Your task to perform on an android device: turn off smart reply in the gmail app Image 0: 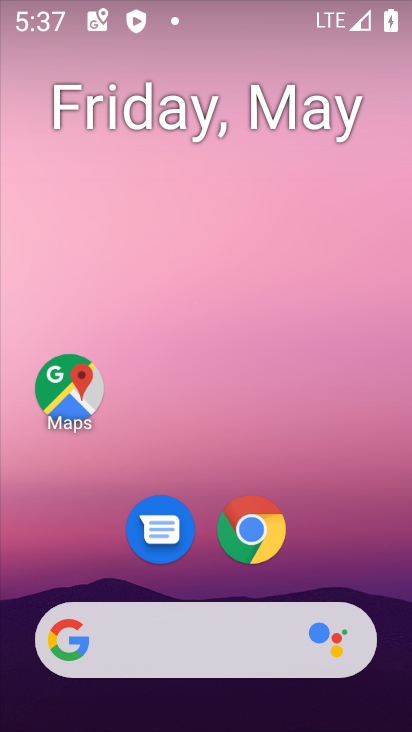
Step 0: drag from (200, 574) to (197, 9)
Your task to perform on an android device: turn off smart reply in the gmail app Image 1: 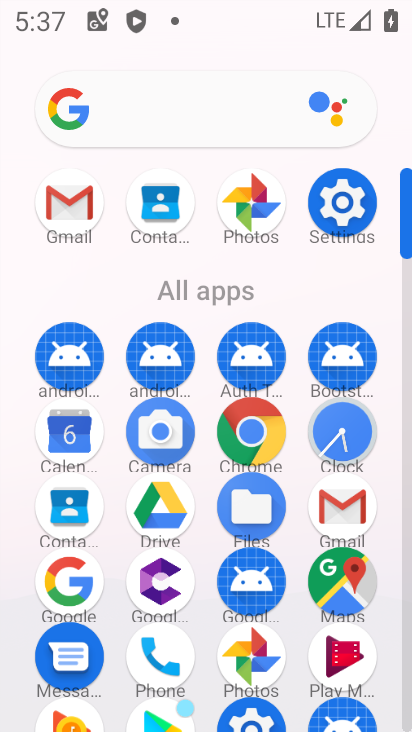
Step 1: click (59, 201)
Your task to perform on an android device: turn off smart reply in the gmail app Image 2: 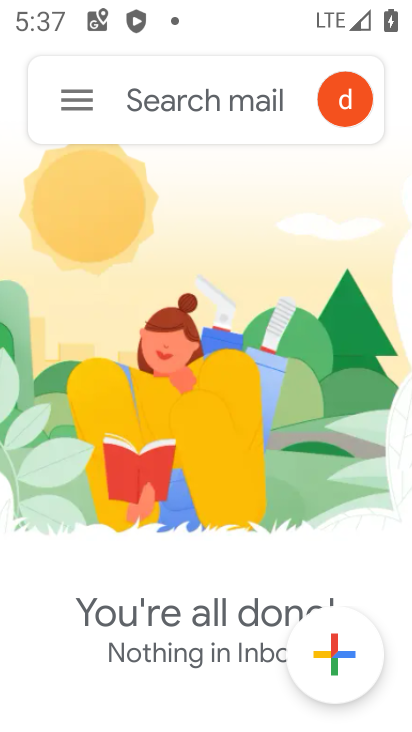
Step 2: click (87, 93)
Your task to perform on an android device: turn off smart reply in the gmail app Image 3: 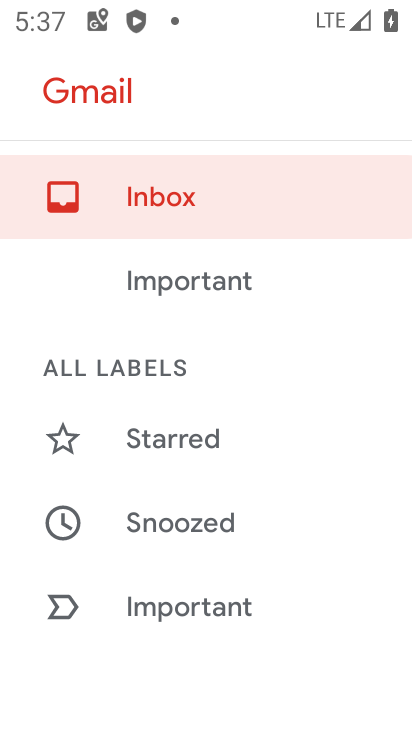
Step 3: drag from (78, 537) to (117, 183)
Your task to perform on an android device: turn off smart reply in the gmail app Image 4: 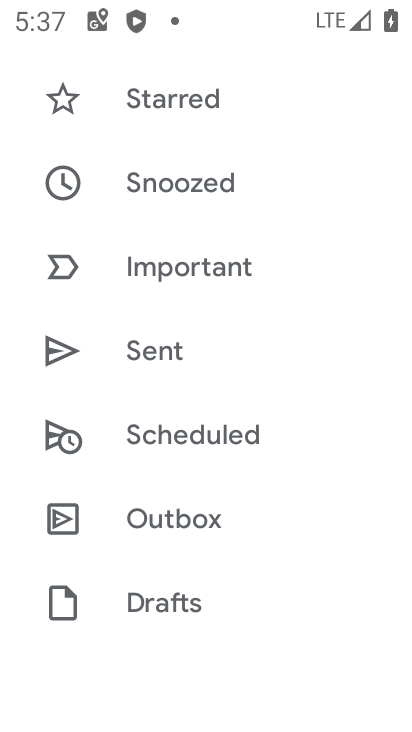
Step 4: drag from (56, 622) to (141, 147)
Your task to perform on an android device: turn off smart reply in the gmail app Image 5: 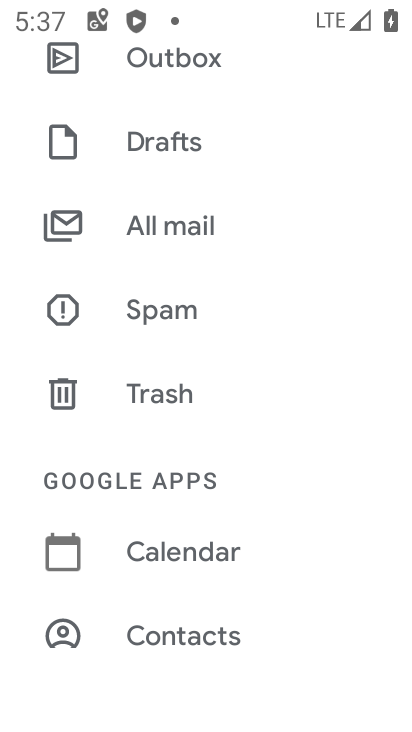
Step 5: drag from (47, 653) to (138, 172)
Your task to perform on an android device: turn off smart reply in the gmail app Image 6: 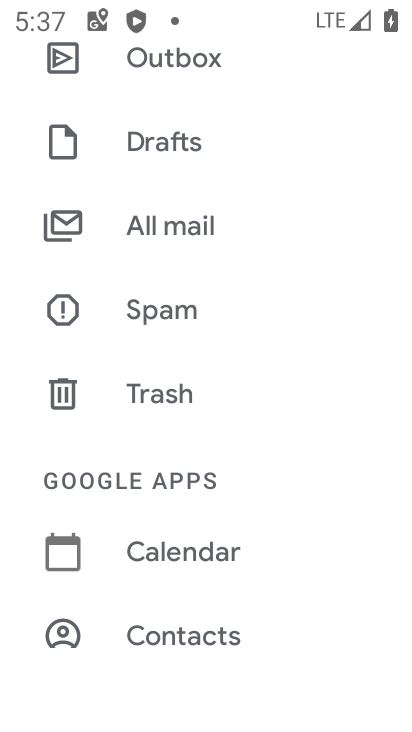
Step 6: drag from (81, 607) to (143, 94)
Your task to perform on an android device: turn off smart reply in the gmail app Image 7: 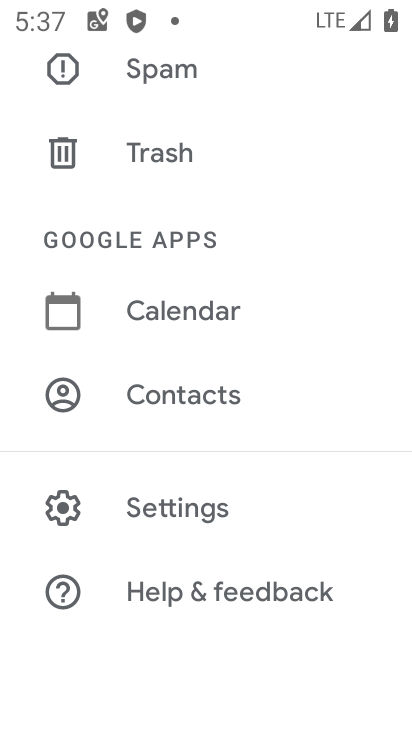
Step 7: click (138, 491)
Your task to perform on an android device: turn off smart reply in the gmail app Image 8: 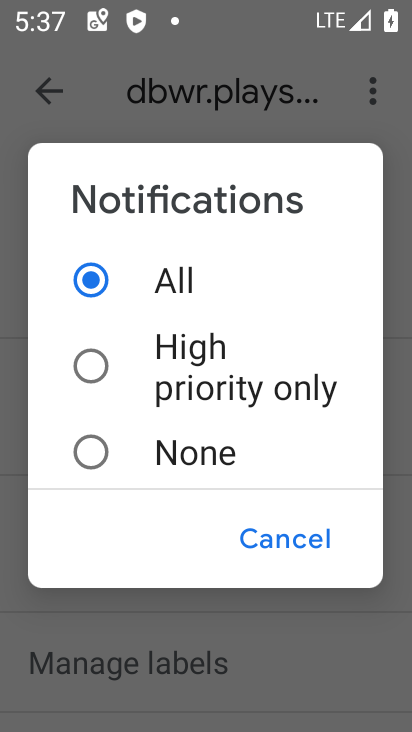
Step 8: click (284, 559)
Your task to perform on an android device: turn off smart reply in the gmail app Image 9: 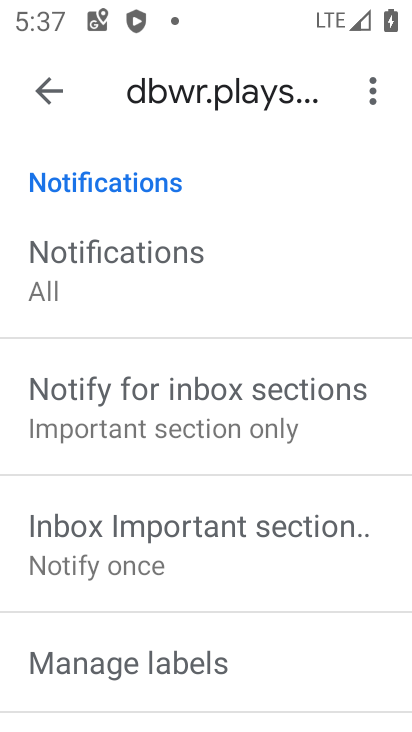
Step 9: drag from (284, 559) to (342, 17)
Your task to perform on an android device: turn off smart reply in the gmail app Image 10: 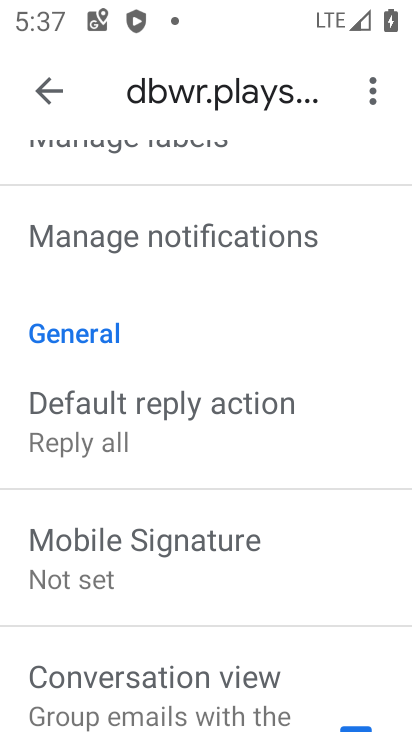
Step 10: drag from (197, 406) to (229, 64)
Your task to perform on an android device: turn off smart reply in the gmail app Image 11: 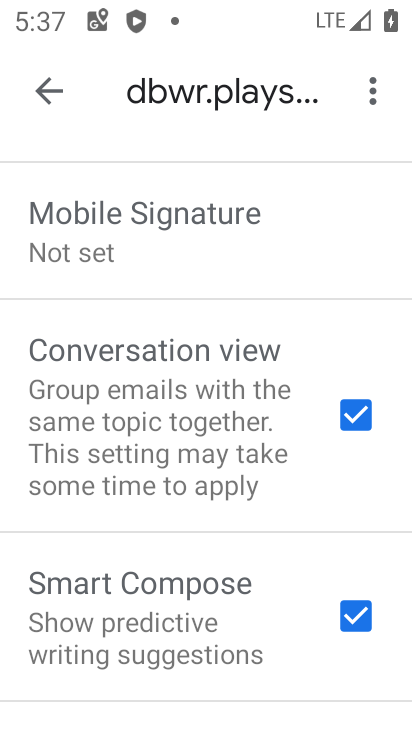
Step 11: drag from (68, 619) to (163, 204)
Your task to perform on an android device: turn off smart reply in the gmail app Image 12: 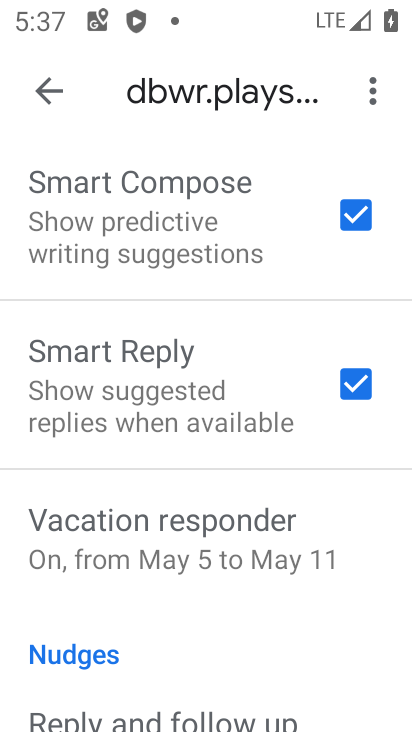
Step 12: click (352, 391)
Your task to perform on an android device: turn off smart reply in the gmail app Image 13: 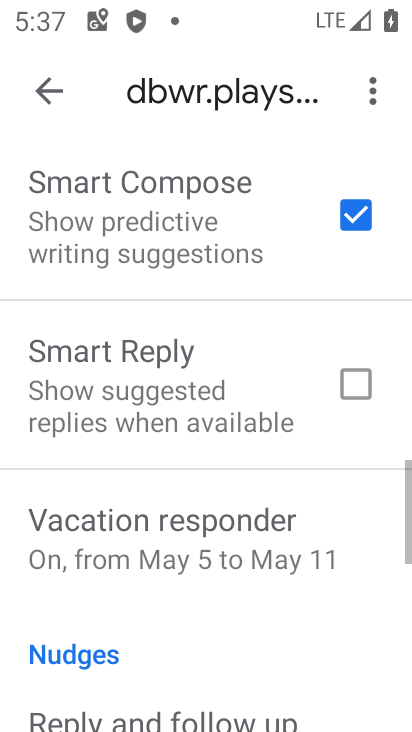
Step 13: task complete